Your task to perform on an android device: turn off location Image 0: 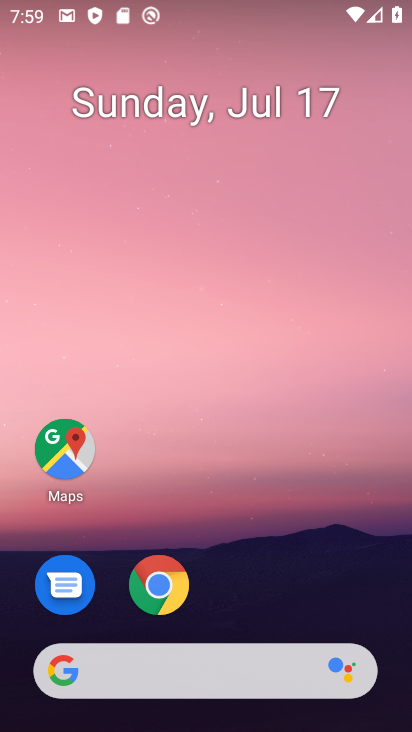
Step 0: drag from (172, 671) to (321, 62)
Your task to perform on an android device: turn off location Image 1: 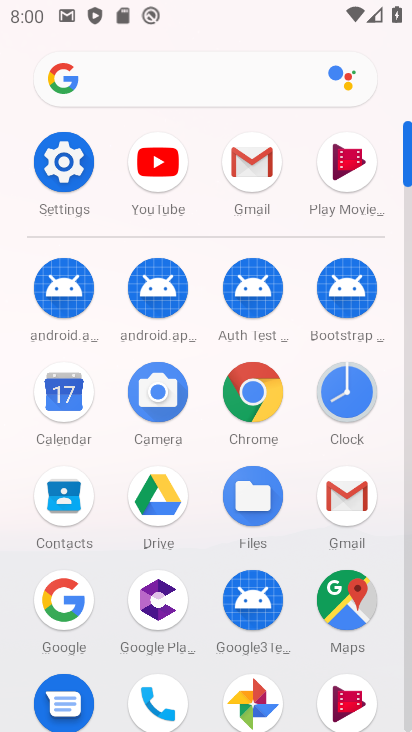
Step 1: click (56, 175)
Your task to perform on an android device: turn off location Image 2: 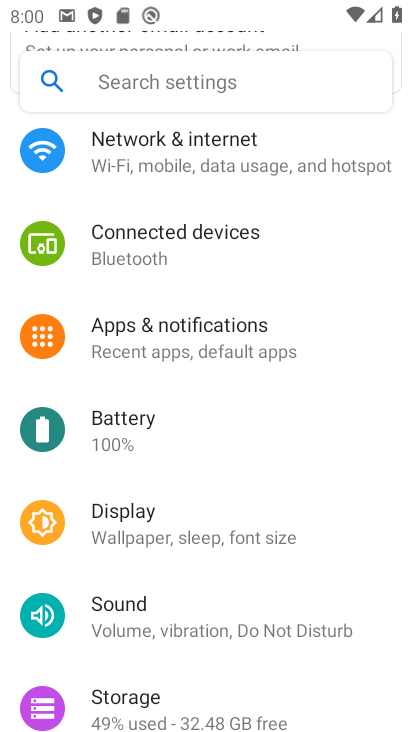
Step 2: drag from (265, 583) to (337, 126)
Your task to perform on an android device: turn off location Image 3: 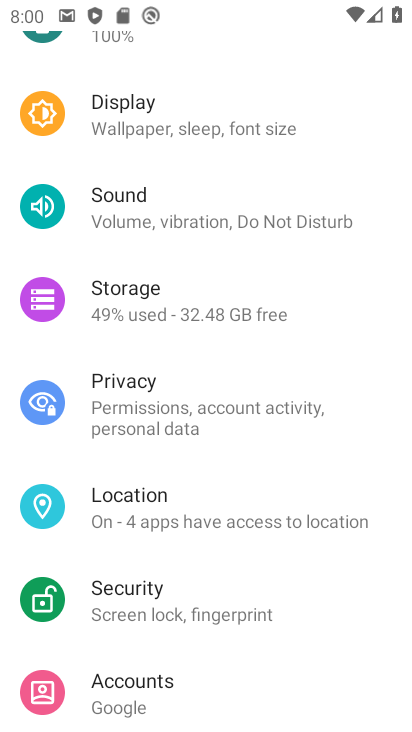
Step 3: click (189, 514)
Your task to perform on an android device: turn off location Image 4: 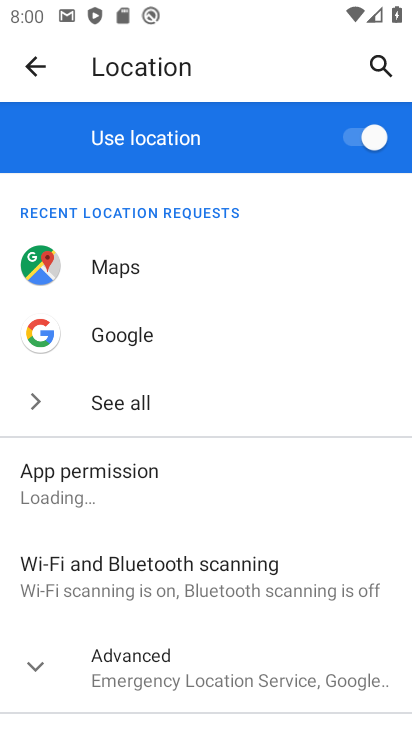
Step 4: click (348, 137)
Your task to perform on an android device: turn off location Image 5: 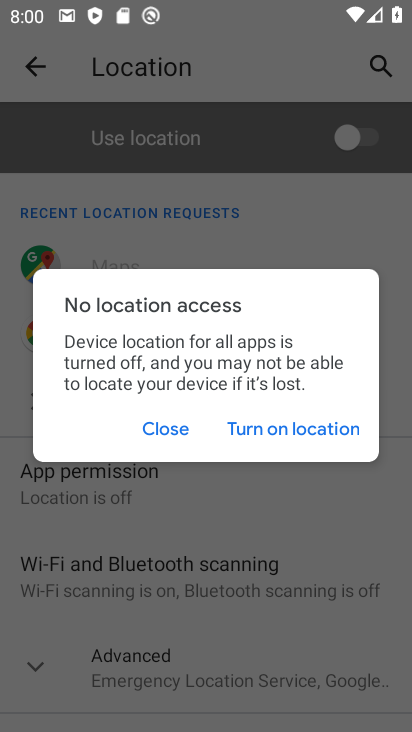
Step 5: click (171, 429)
Your task to perform on an android device: turn off location Image 6: 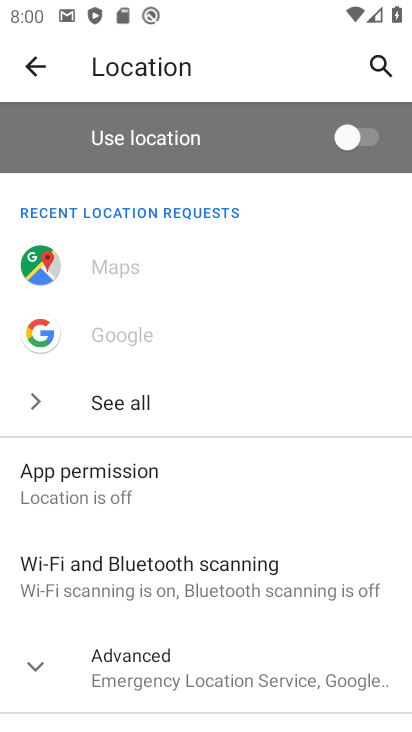
Step 6: task complete